Your task to perform on an android device: change alarm snooze length Image 0: 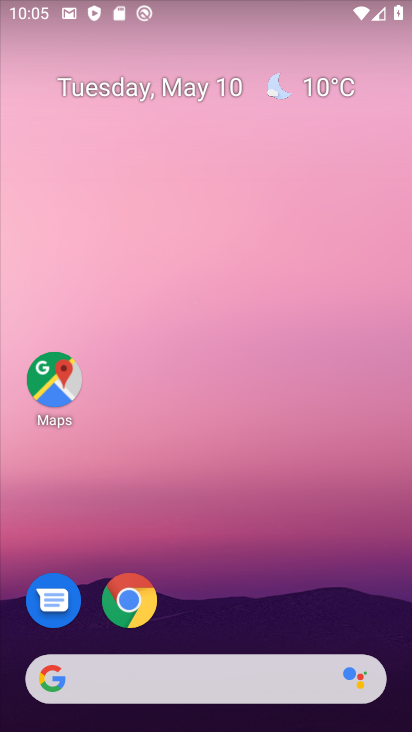
Step 0: drag from (243, 510) to (205, 0)
Your task to perform on an android device: change alarm snooze length Image 1: 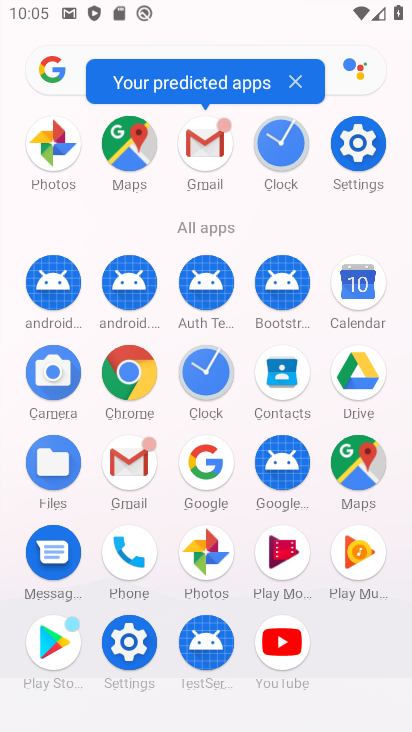
Step 1: click (206, 369)
Your task to perform on an android device: change alarm snooze length Image 2: 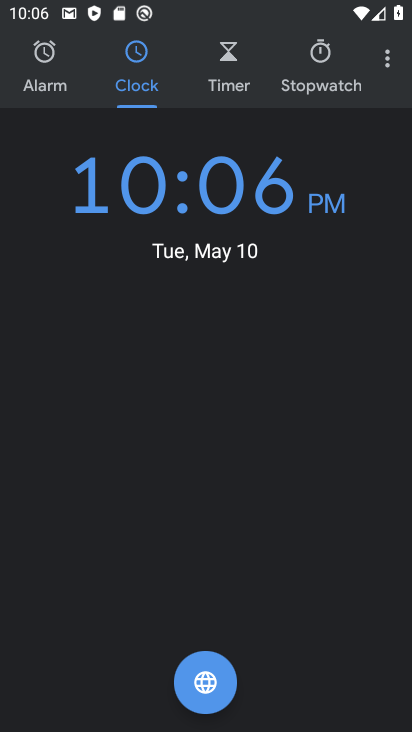
Step 2: drag from (394, 60) to (313, 119)
Your task to perform on an android device: change alarm snooze length Image 3: 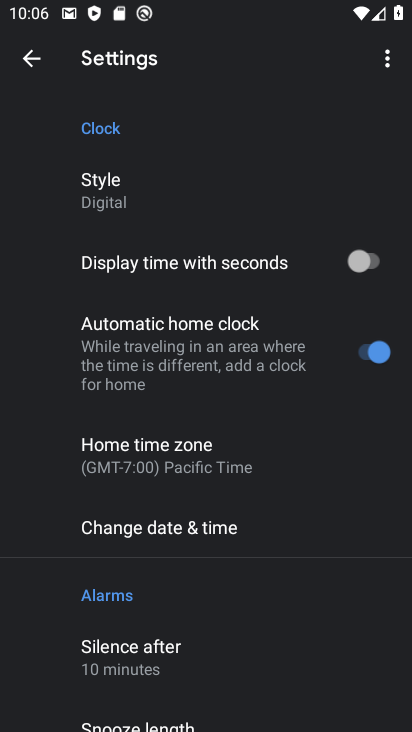
Step 3: drag from (208, 423) to (208, 164)
Your task to perform on an android device: change alarm snooze length Image 4: 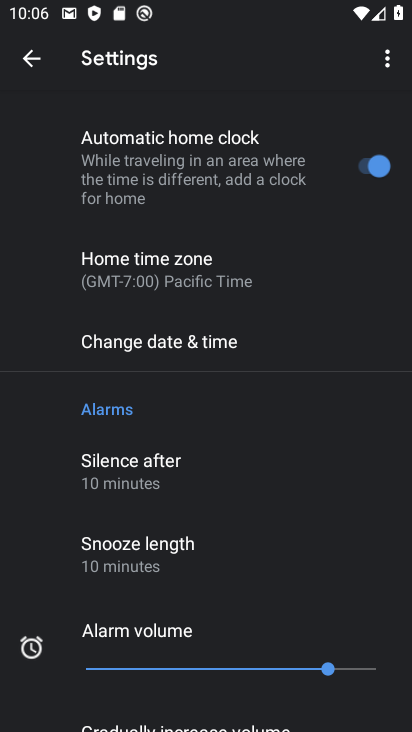
Step 4: drag from (232, 106) to (265, 472)
Your task to perform on an android device: change alarm snooze length Image 5: 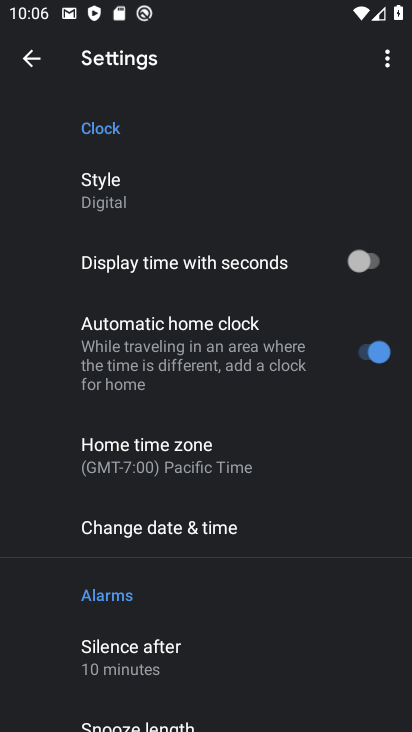
Step 5: drag from (245, 407) to (259, 175)
Your task to perform on an android device: change alarm snooze length Image 6: 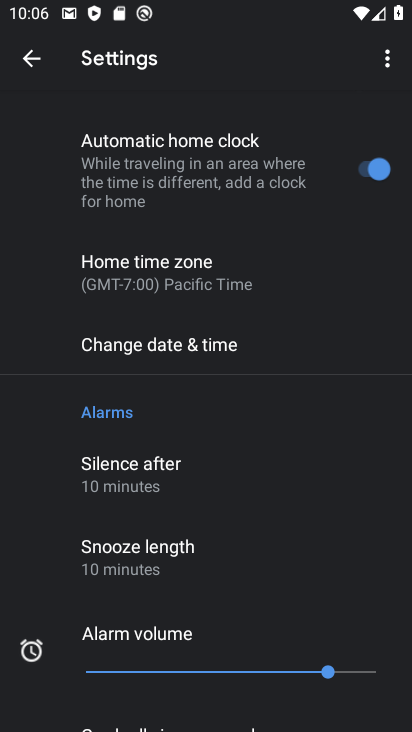
Step 6: click (183, 547)
Your task to perform on an android device: change alarm snooze length Image 7: 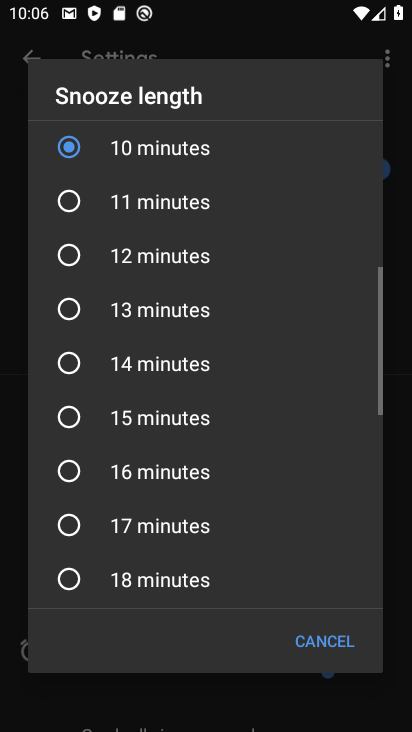
Step 7: click (107, 202)
Your task to perform on an android device: change alarm snooze length Image 8: 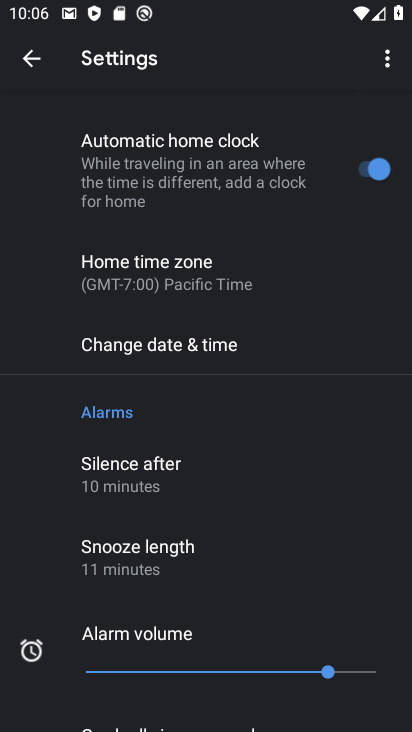
Step 8: task complete